Your task to perform on an android device: change notifications settings Image 0: 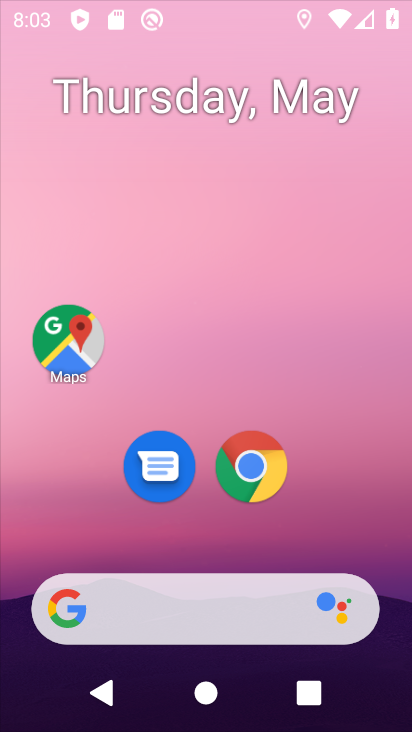
Step 0: drag from (221, 559) to (256, 8)
Your task to perform on an android device: change notifications settings Image 1: 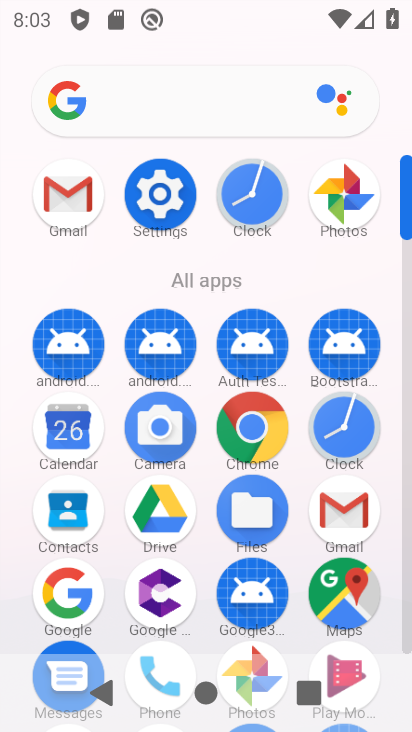
Step 1: click (162, 205)
Your task to perform on an android device: change notifications settings Image 2: 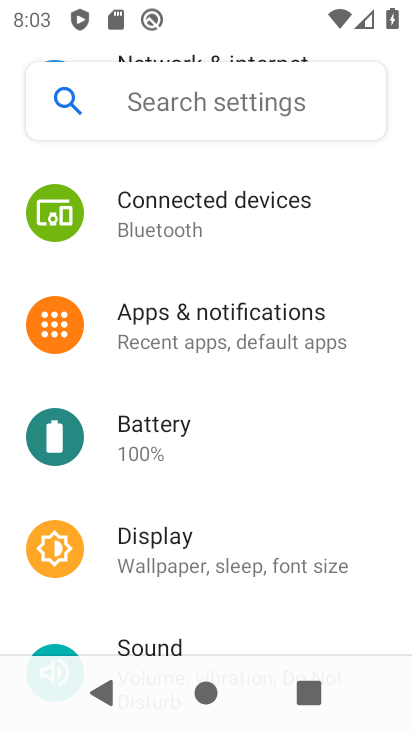
Step 2: click (227, 305)
Your task to perform on an android device: change notifications settings Image 3: 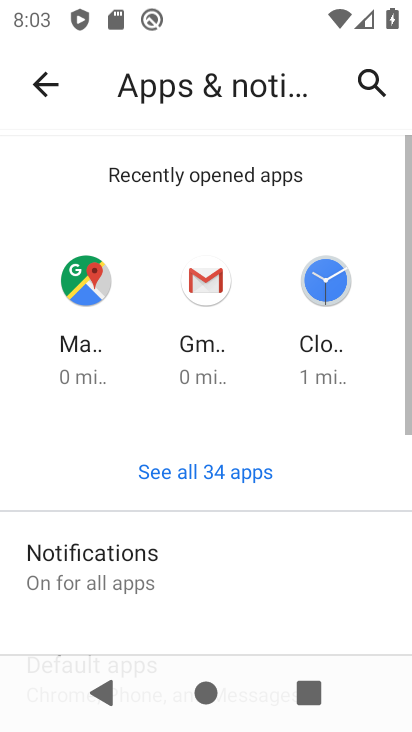
Step 3: drag from (185, 553) to (184, 208)
Your task to perform on an android device: change notifications settings Image 4: 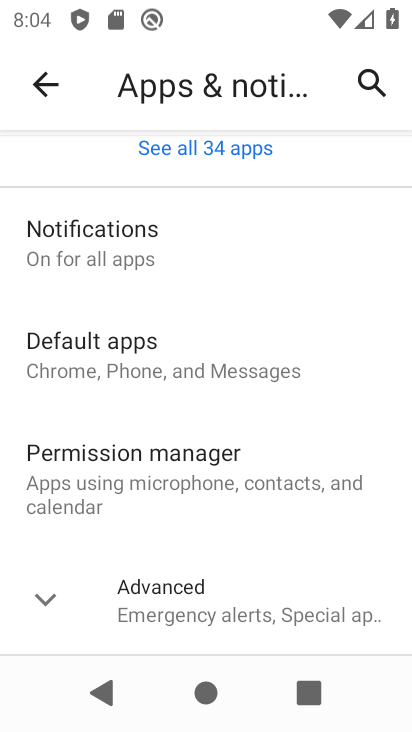
Step 4: click (124, 249)
Your task to perform on an android device: change notifications settings Image 5: 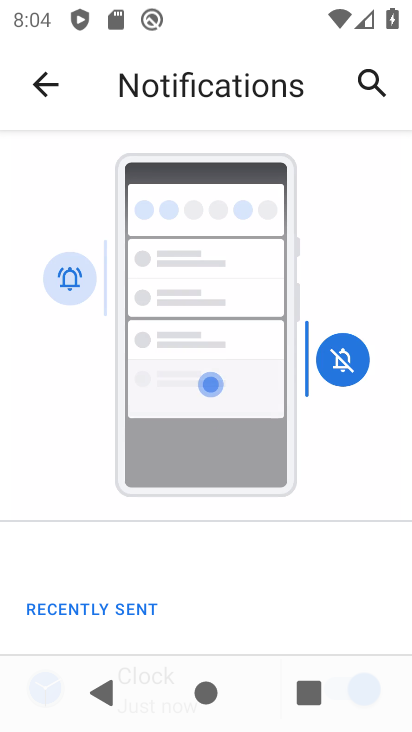
Step 5: task complete